Your task to perform on an android device: Open Google Maps and go to "Timeline" Image 0: 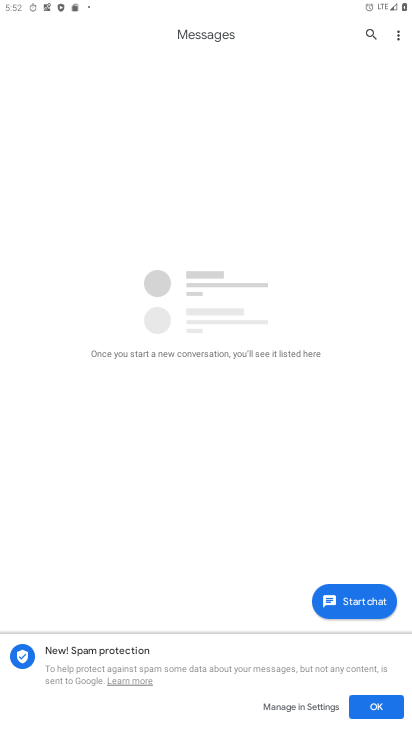
Step 0: drag from (198, 640) to (407, 624)
Your task to perform on an android device: Open Google Maps and go to "Timeline" Image 1: 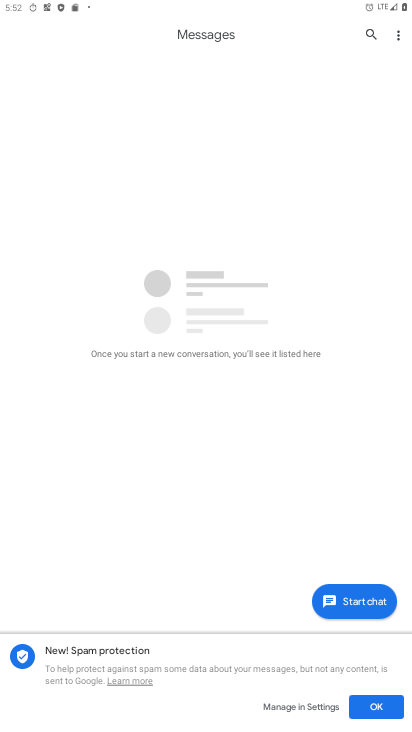
Step 1: press home button
Your task to perform on an android device: Open Google Maps and go to "Timeline" Image 2: 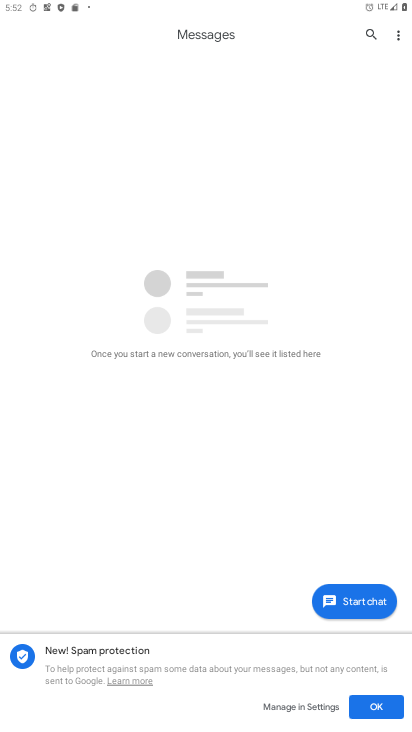
Step 2: click (407, 624)
Your task to perform on an android device: Open Google Maps and go to "Timeline" Image 3: 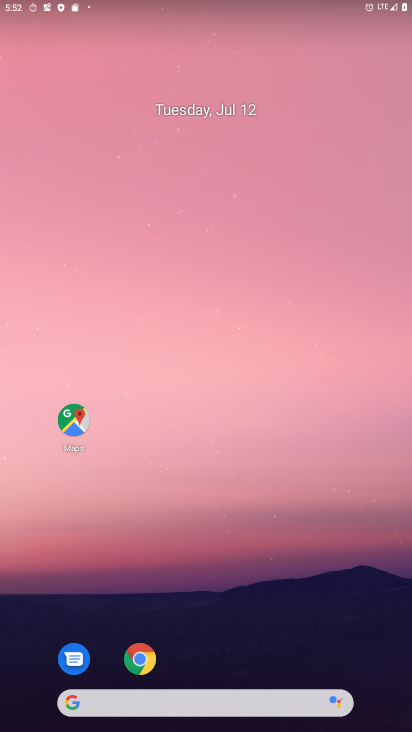
Step 3: drag from (198, 660) to (210, 80)
Your task to perform on an android device: Open Google Maps and go to "Timeline" Image 4: 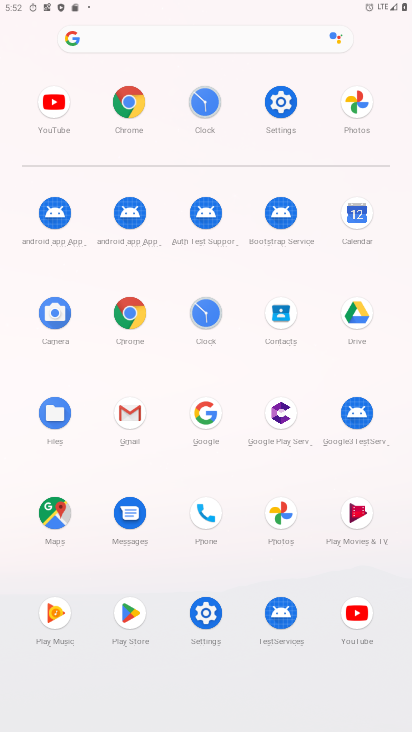
Step 4: click (48, 526)
Your task to perform on an android device: Open Google Maps and go to "Timeline" Image 5: 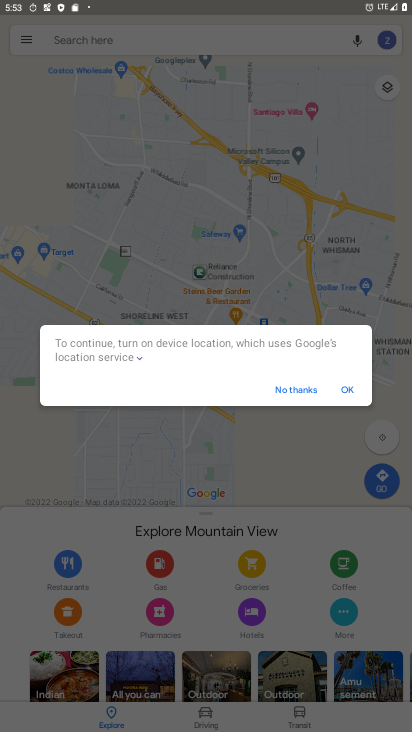
Step 5: click (354, 393)
Your task to perform on an android device: Open Google Maps and go to "Timeline" Image 6: 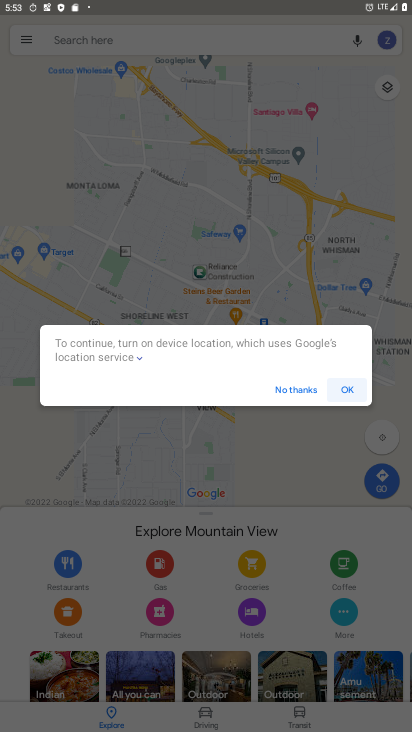
Step 6: click (21, 36)
Your task to perform on an android device: Open Google Maps and go to "Timeline" Image 7: 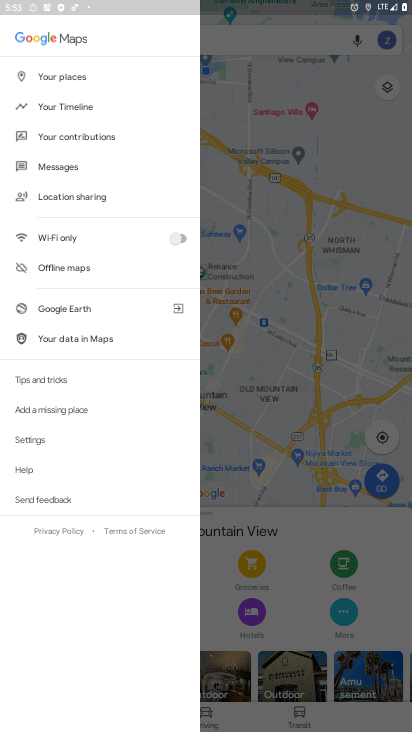
Step 7: click (80, 108)
Your task to perform on an android device: Open Google Maps and go to "Timeline" Image 8: 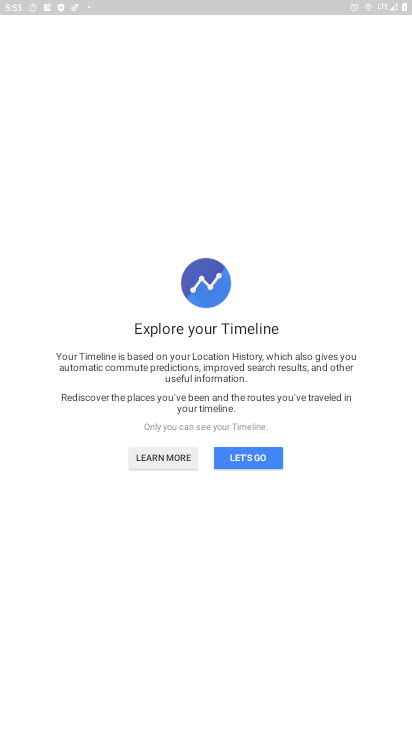
Step 8: click (236, 453)
Your task to perform on an android device: Open Google Maps and go to "Timeline" Image 9: 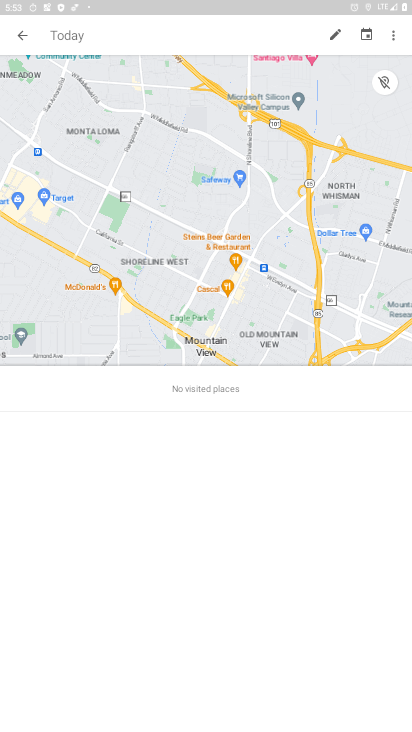
Step 9: task complete